Your task to perform on an android device: Open Yahoo.com Image 0: 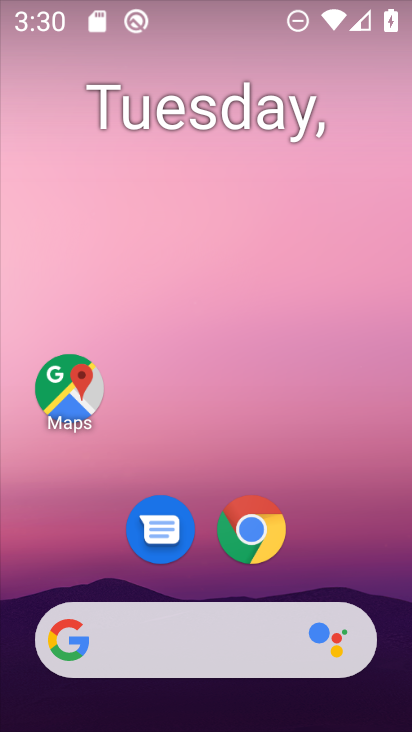
Step 0: click (253, 521)
Your task to perform on an android device: Open Yahoo.com Image 1: 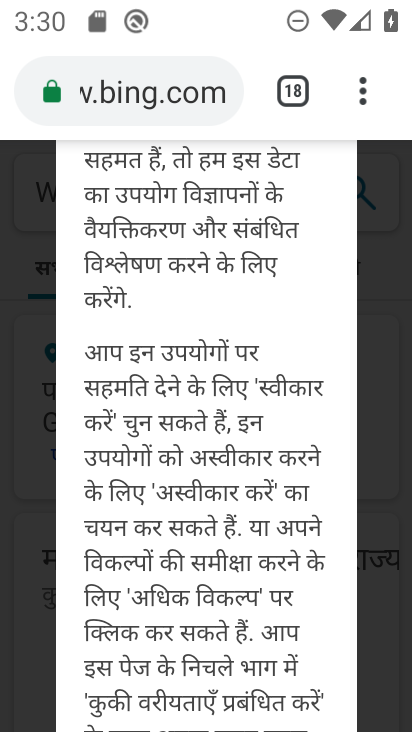
Step 1: click (367, 65)
Your task to perform on an android device: Open Yahoo.com Image 2: 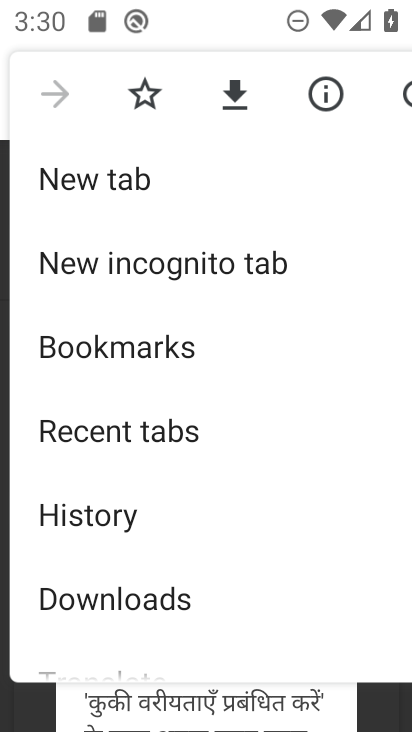
Step 2: click (91, 187)
Your task to perform on an android device: Open Yahoo.com Image 3: 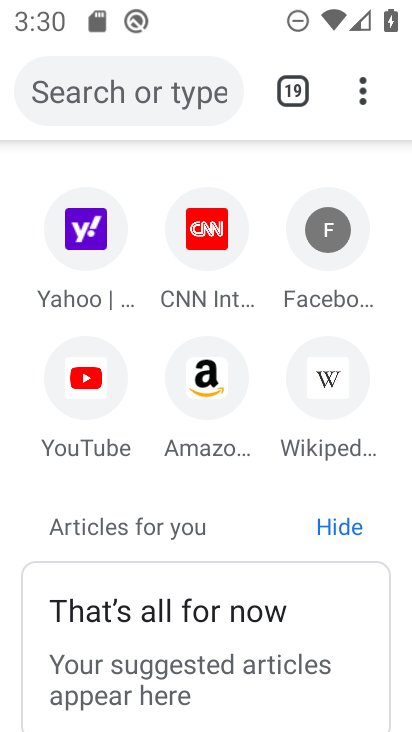
Step 3: click (90, 261)
Your task to perform on an android device: Open Yahoo.com Image 4: 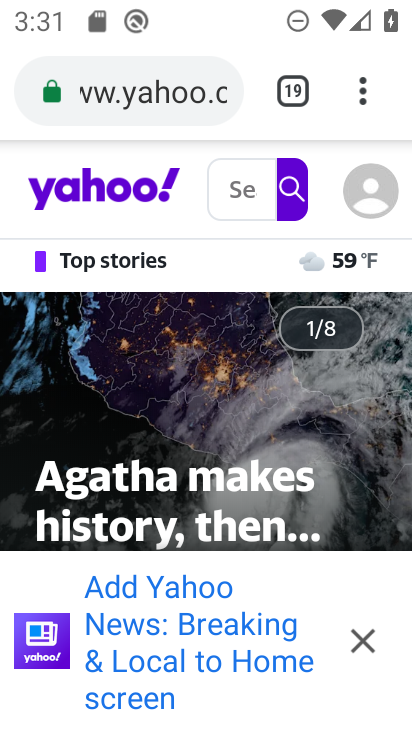
Step 4: task complete